Your task to perform on an android device: create a new album in the google photos Image 0: 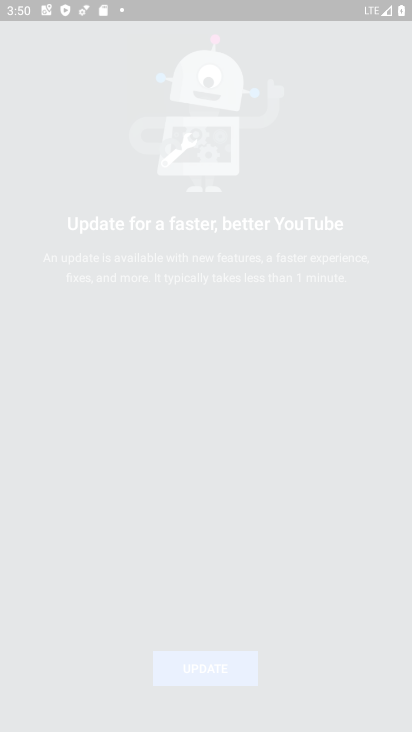
Step 0: drag from (215, 699) to (192, 127)
Your task to perform on an android device: create a new album in the google photos Image 1: 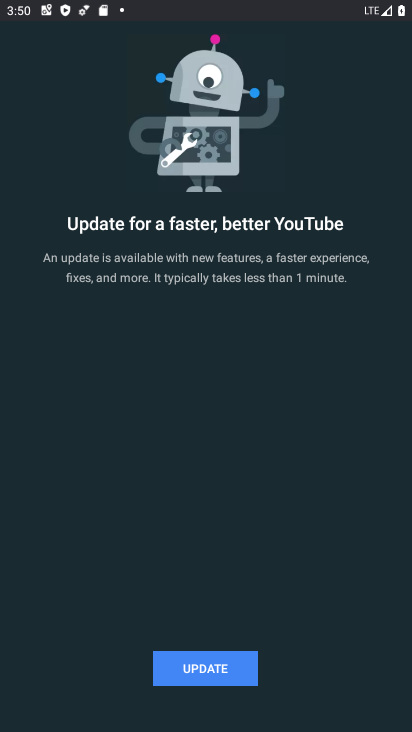
Step 1: press home button
Your task to perform on an android device: create a new album in the google photos Image 2: 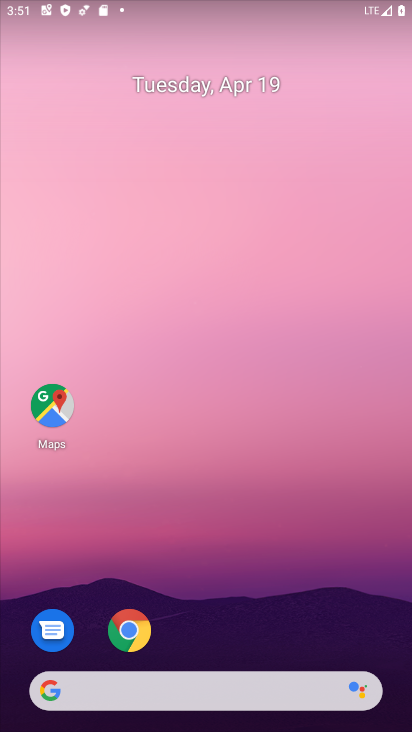
Step 2: drag from (226, 722) to (235, 125)
Your task to perform on an android device: create a new album in the google photos Image 3: 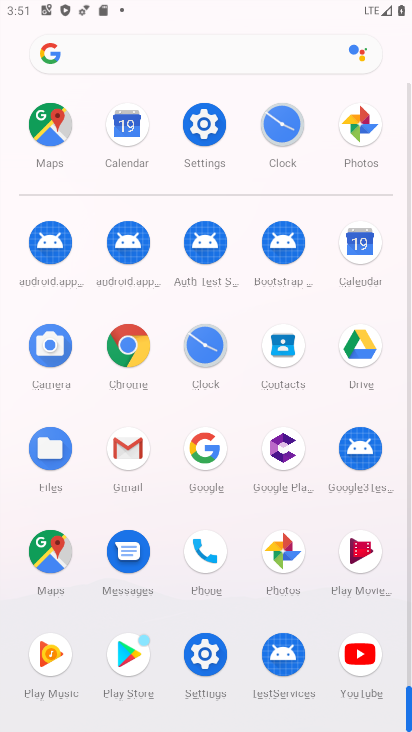
Step 3: click (289, 550)
Your task to perform on an android device: create a new album in the google photos Image 4: 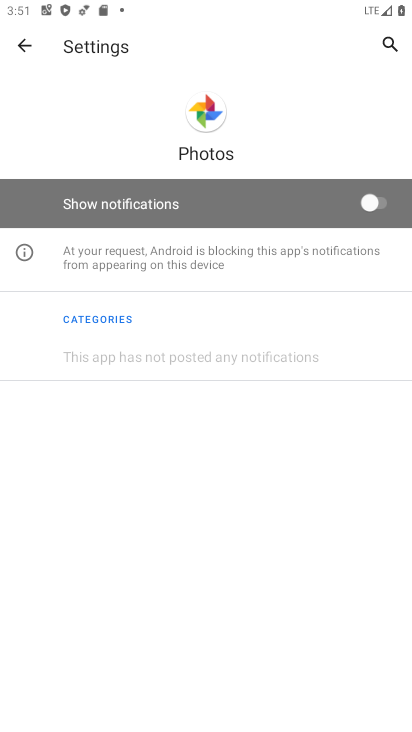
Step 4: click (25, 43)
Your task to perform on an android device: create a new album in the google photos Image 5: 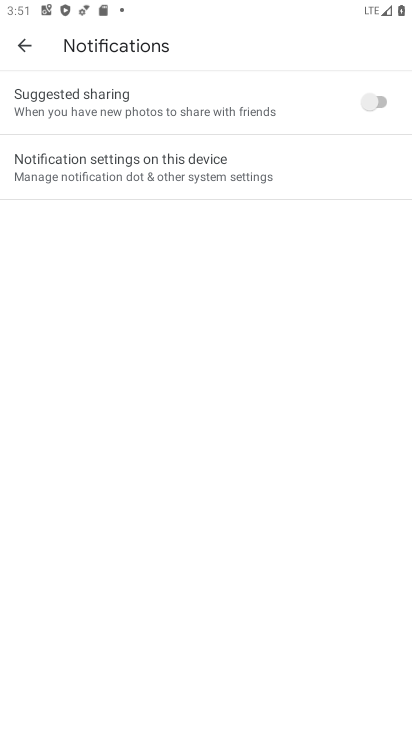
Step 5: click (28, 43)
Your task to perform on an android device: create a new album in the google photos Image 6: 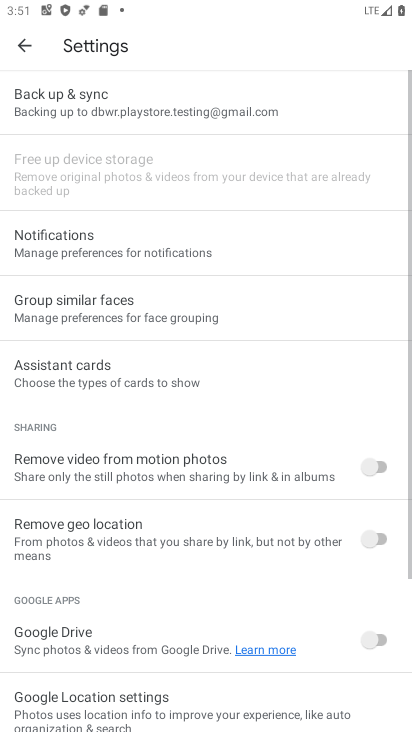
Step 6: click (24, 36)
Your task to perform on an android device: create a new album in the google photos Image 7: 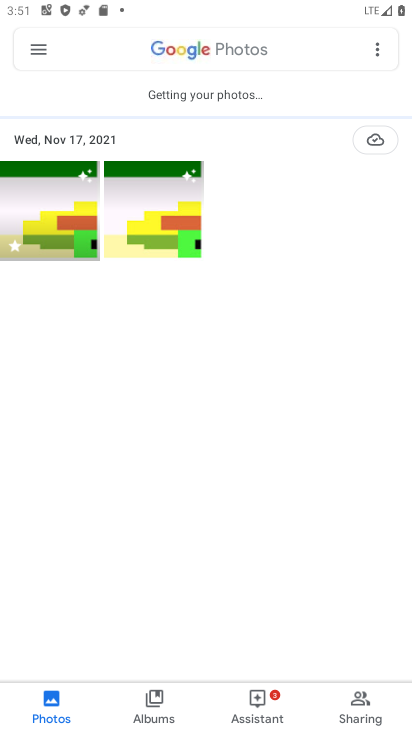
Step 7: click (377, 41)
Your task to perform on an android device: create a new album in the google photos Image 8: 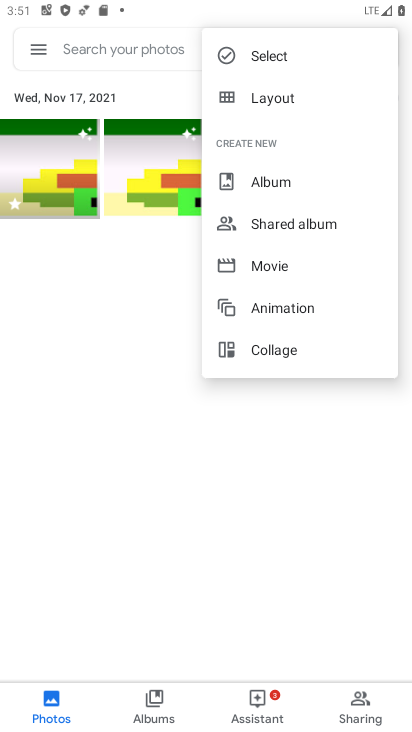
Step 8: click (270, 183)
Your task to perform on an android device: create a new album in the google photos Image 9: 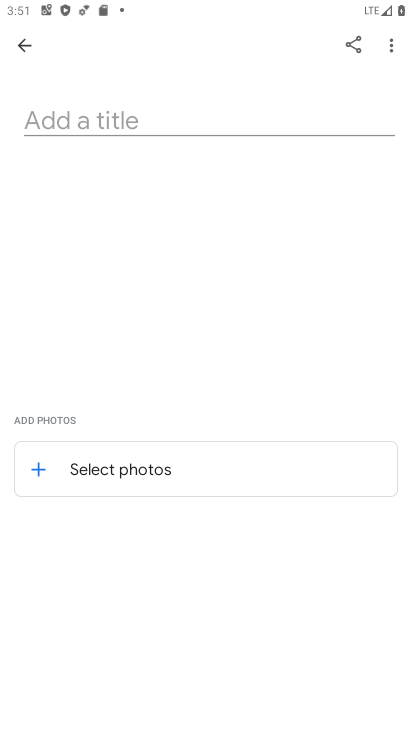
Step 9: click (133, 121)
Your task to perform on an android device: create a new album in the google photos Image 10: 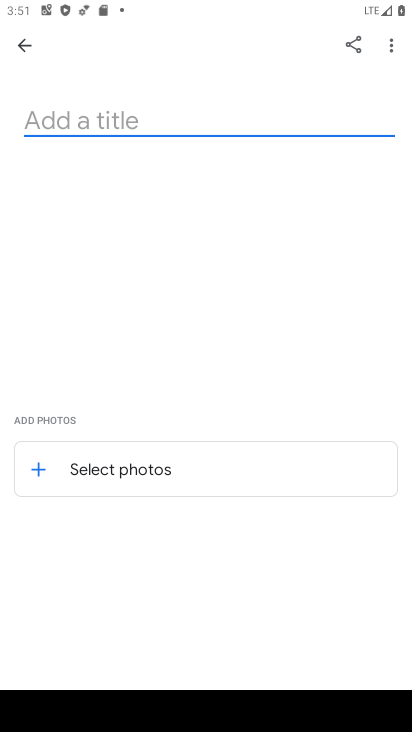
Step 10: type "tour"
Your task to perform on an android device: create a new album in the google photos Image 11: 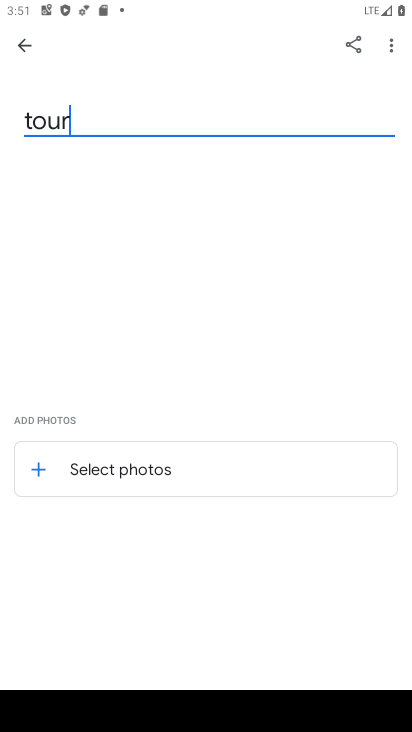
Step 11: click (165, 380)
Your task to perform on an android device: create a new album in the google photos Image 12: 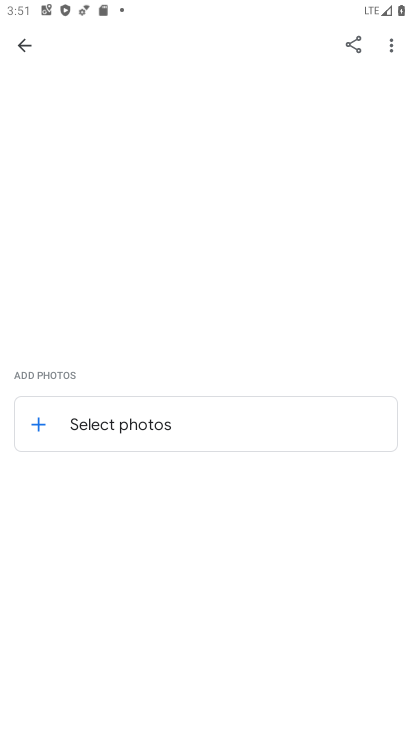
Step 12: click (37, 423)
Your task to perform on an android device: create a new album in the google photos Image 13: 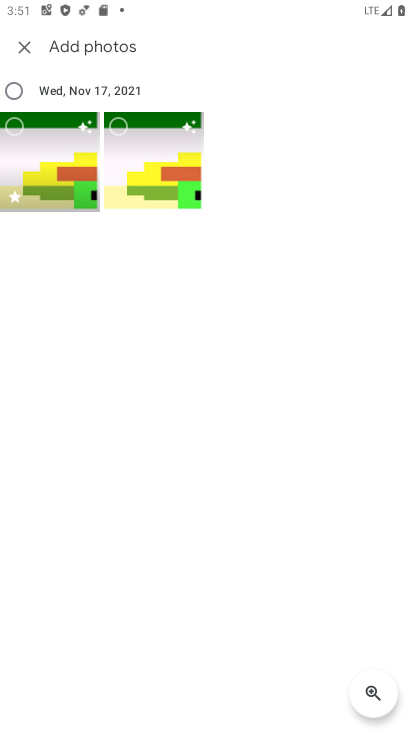
Step 13: click (34, 154)
Your task to perform on an android device: create a new album in the google photos Image 14: 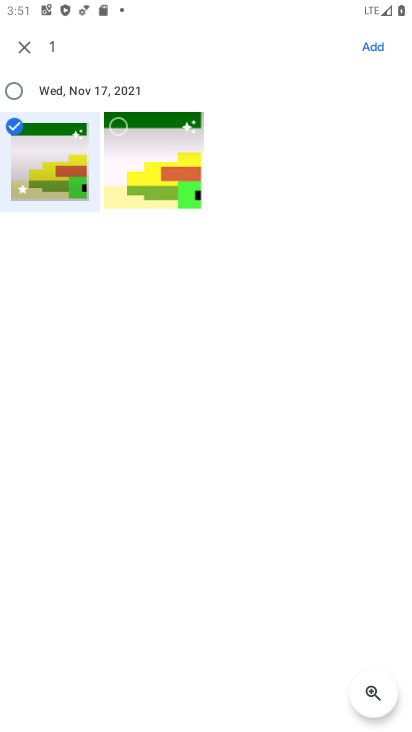
Step 14: click (370, 44)
Your task to perform on an android device: create a new album in the google photos Image 15: 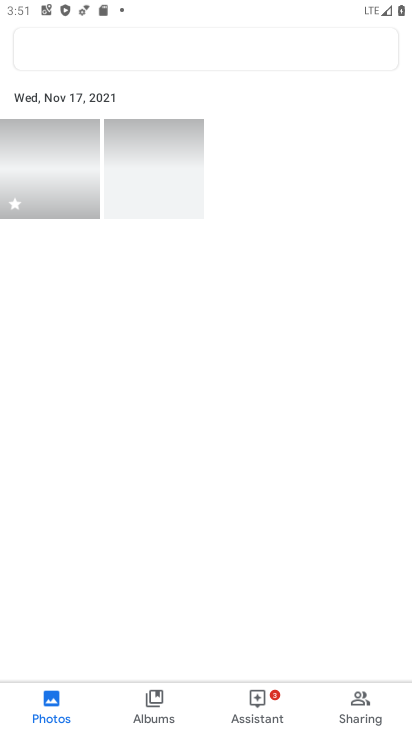
Step 15: task complete